Your task to perform on an android device: Turn off the flashlight Image 0: 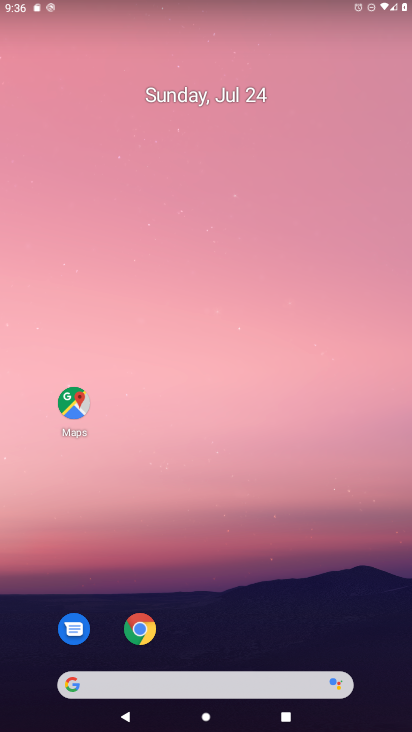
Step 0: drag from (350, 622) to (118, 61)
Your task to perform on an android device: Turn off the flashlight Image 1: 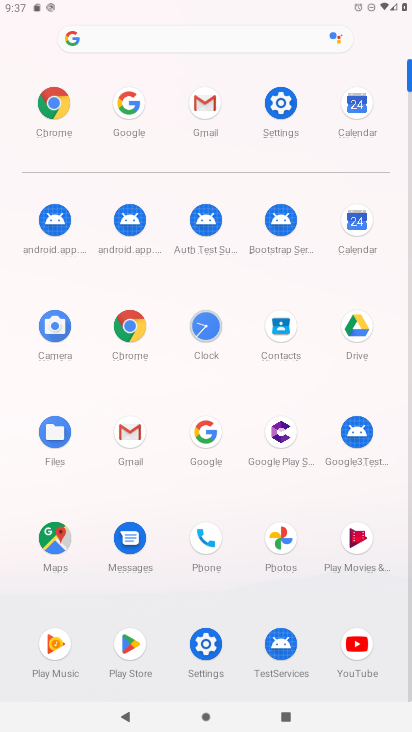
Step 1: click (191, 635)
Your task to perform on an android device: Turn off the flashlight Image 2: 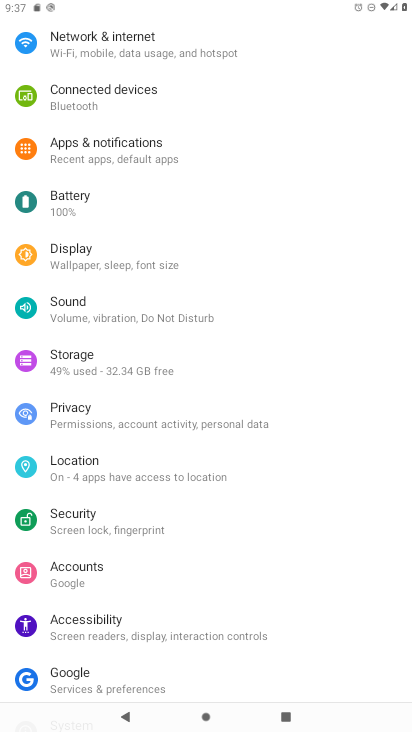
Step 2: task complete